Your task to perform on an android device: add a contact Image 0: 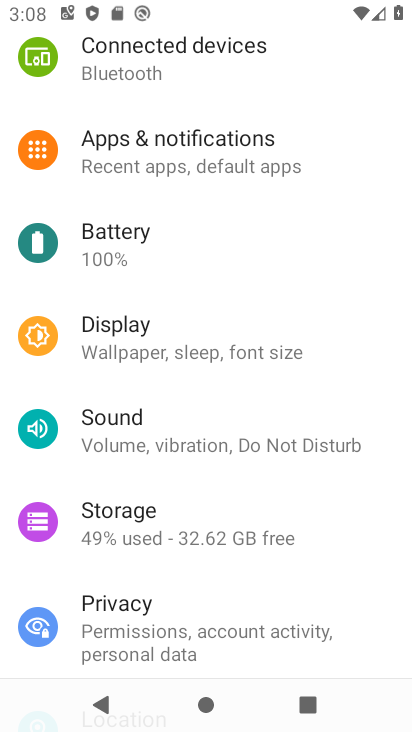
Step 0: press home button
Your task to perform on an android device: add a contact Image 1: 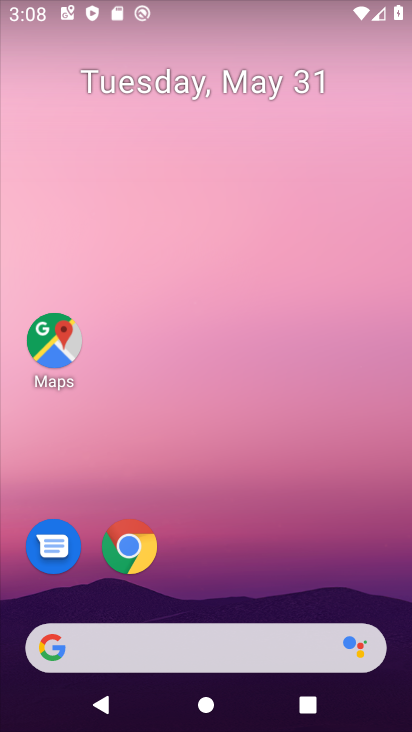
Step 1: drag from (242, 509) to (227, 77)
Your task to perform on an android device: add a contact Image 2: 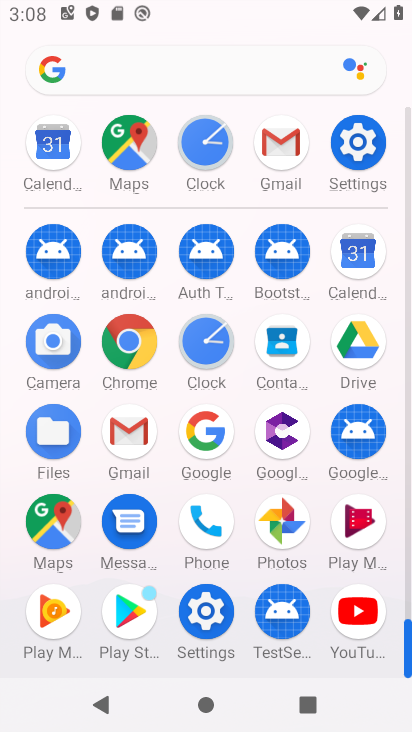
Step 2: click (271, 336)
Your task to perform on an android device: add a contact Image 3: 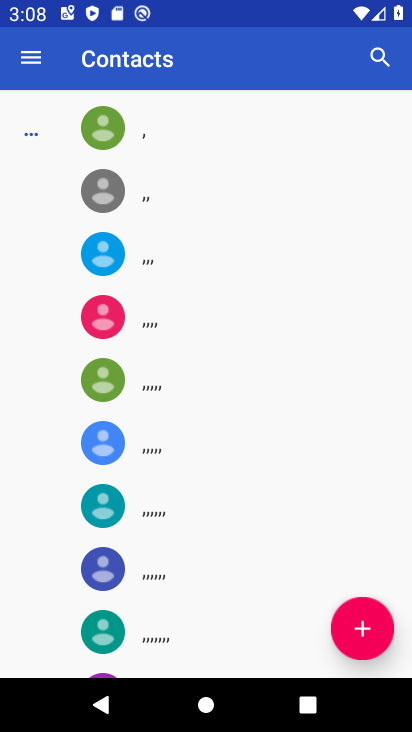
Step 3: click (371, 613)
Your task to perform on an android device: add a contact Image 4: 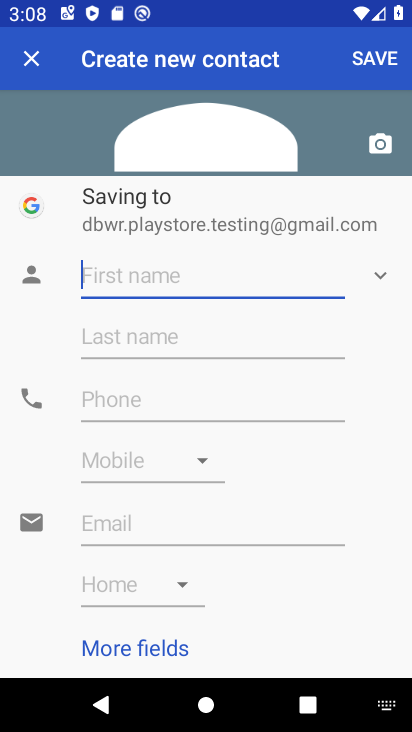
Step 4: type "Hastinapur Indraprastha"
Your task to perform on an android device: add a contact Image 5: 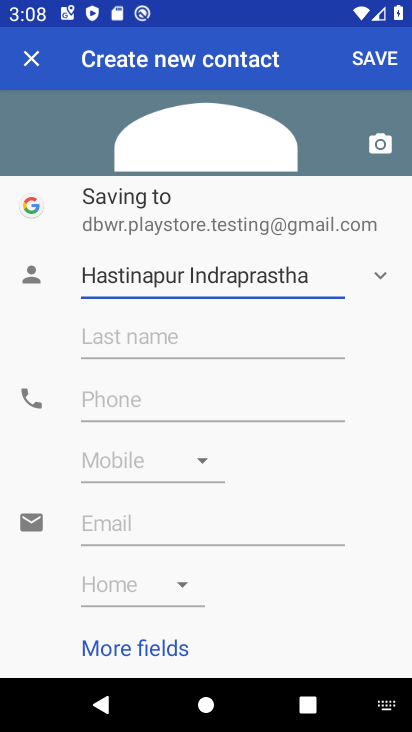
Step 5: click (261, 395)
Your task to perform on an android device: add a contact Image 6: 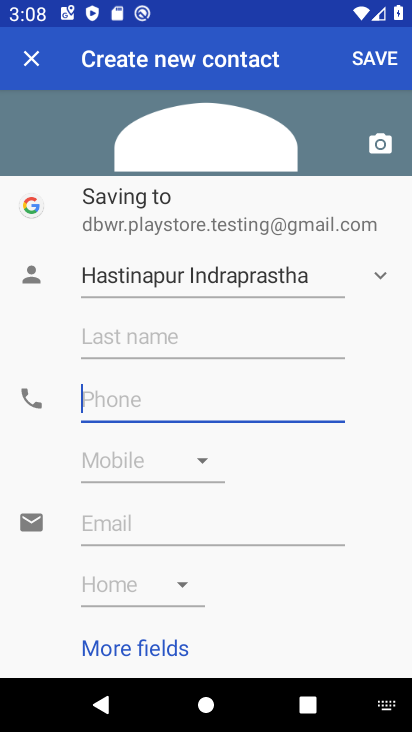
Step 6: type "011223446688"
Your task to perform on an android device: add a contact Image 7: 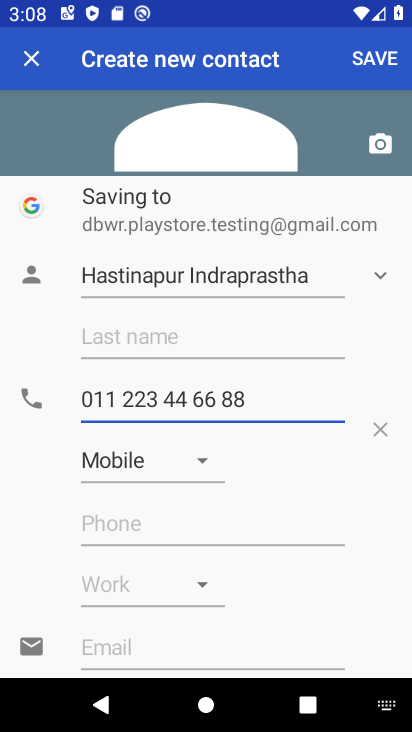
Step 7: click (370, 66)
Your task to perform on an android device: add a contact Image 8: 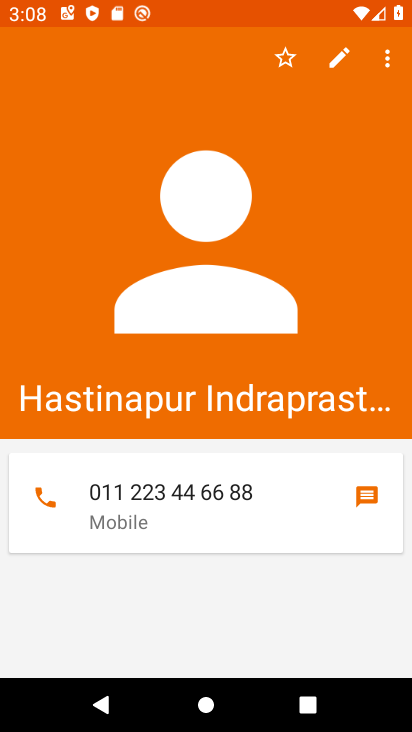
Step 8: task complete